Your task to perform on an android device: check storage Image 0: 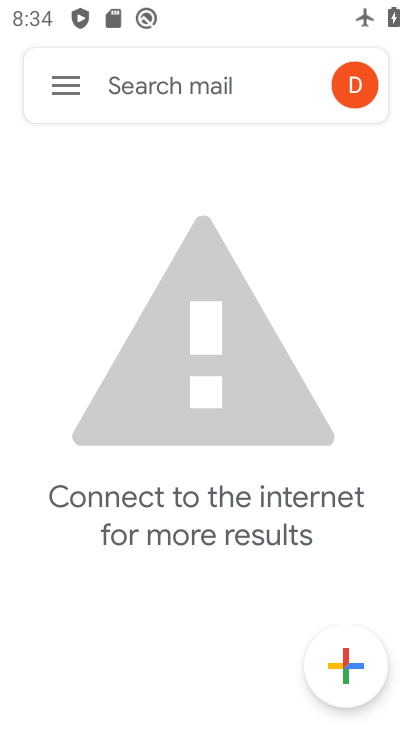
Step 0: press home button
Your task to perform on an android device: check storage Image 1: 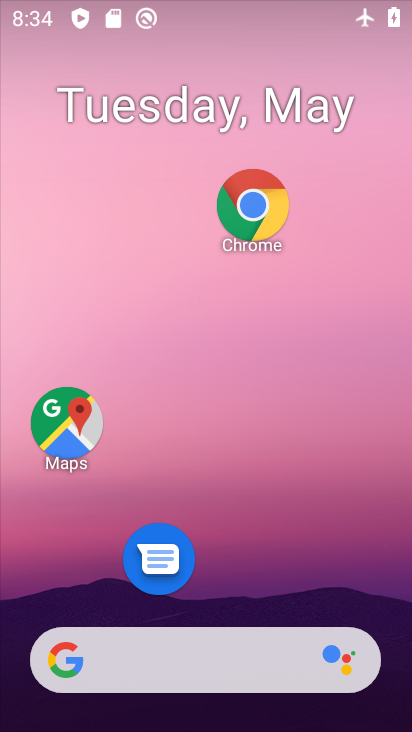
Step 1: drag from (239, 576) to (252, 188)
Your task to perform on an android device: check storage Image 2: 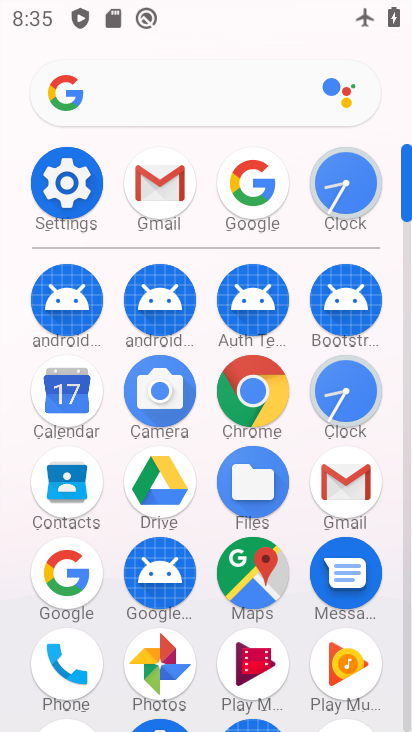
Step 2: click (69, 205)
Your task to perform on an android device: check storage Image 3: 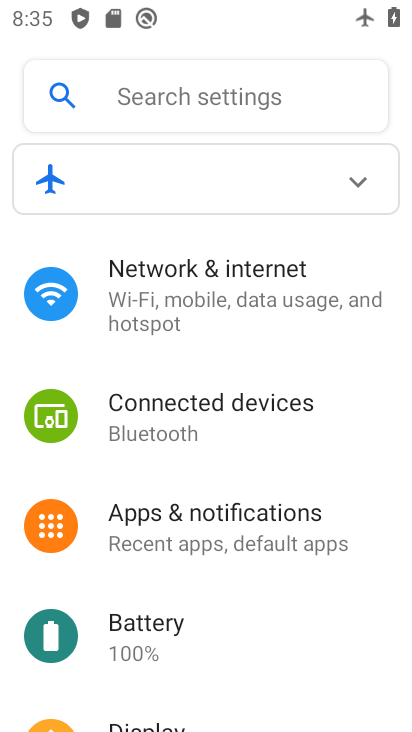
Step 3: drag from (218, 593) to (270, 242)
Your task to perform on an android device: check storage Image 4: 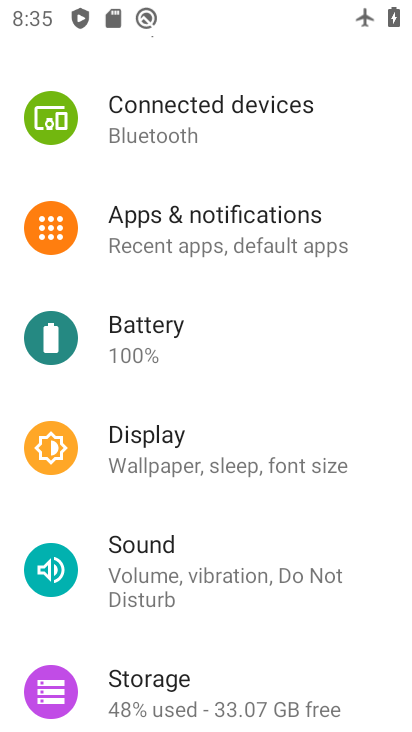
Step 4: drag from (171, 633) to (245, 471)
Your task to perform on an android device: check storage Image 5: 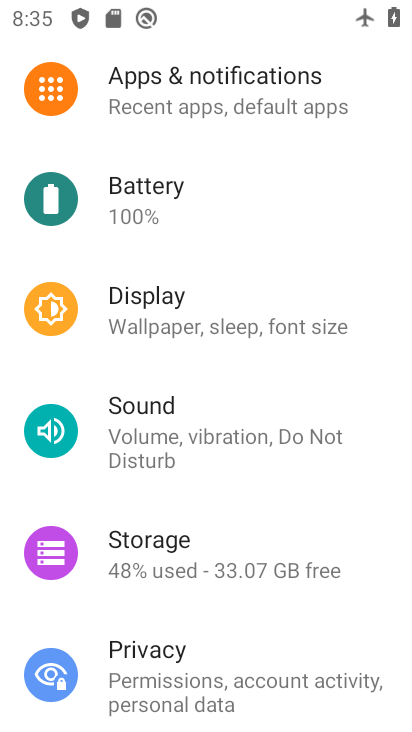
Step 5: click (187, 540)
Your task to perform on an android device: check storage Image 6: 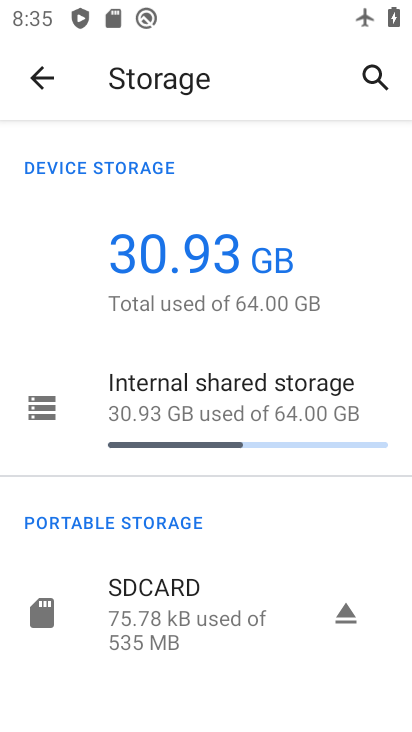
Step 6: task complete